Your task to perform on an android device: turn off wifi Image 0: 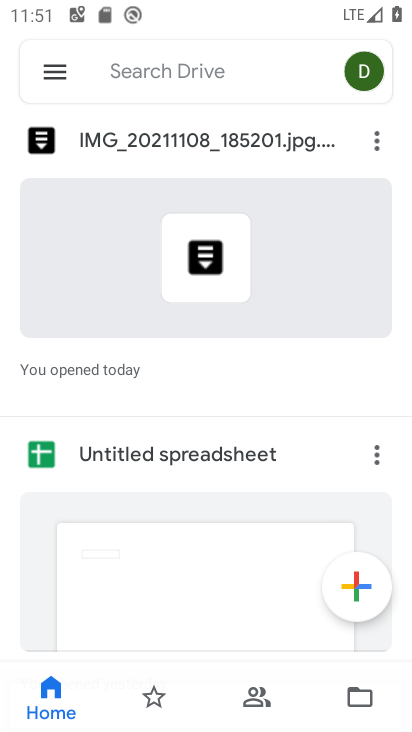
Step 0: press home button
Your task to perform on an android device: turn off wifi Image 1: 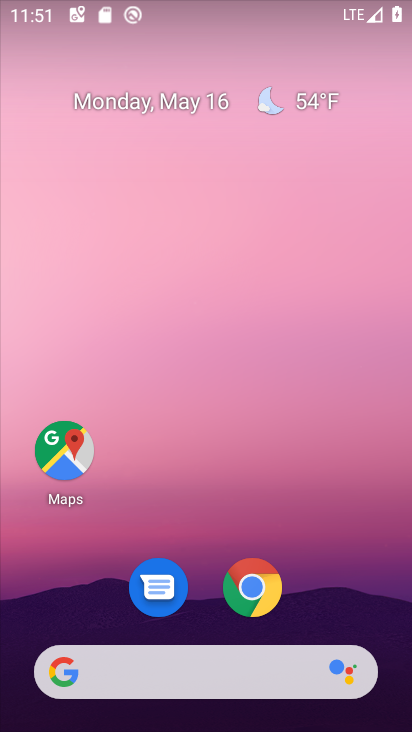
Step 1: drag from (199, 587) to (239, 85)
Your task to perform on an android device: turn off wifi Image 2: 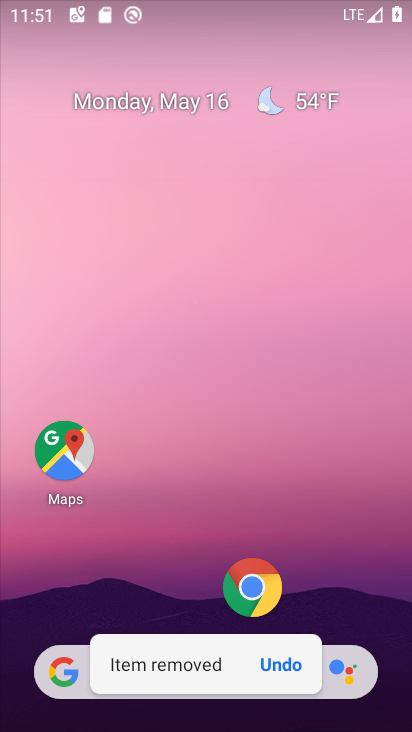
Step 2: drag from (184, 604) to (287, 3)
Your task to perform on an android device: turn off wifi Image 3: 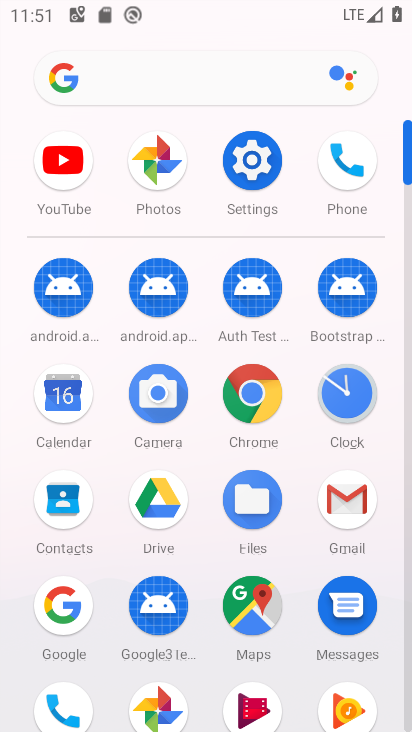
Step 3: click (256, 159)
Your task to perform on an android device: turn off wifi Image 4: 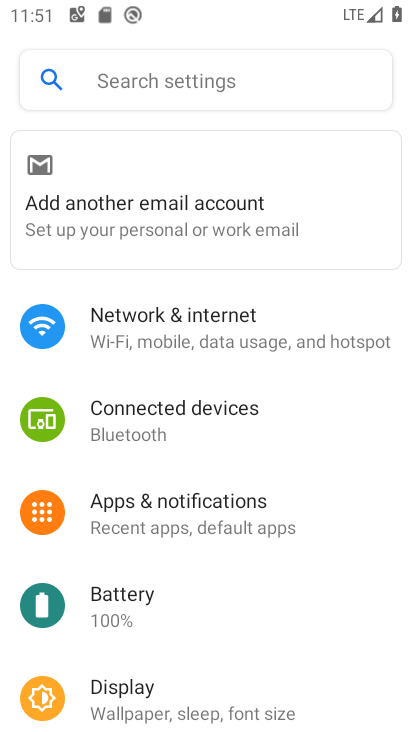
Step 4: click (192, 321)
Your task to perform on an android device: turn off wifi Image 5: 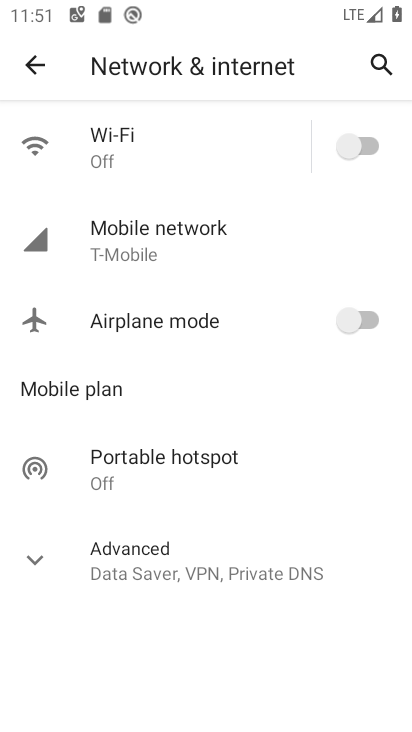
Step 5: task complete